Your task to perform on an android device: Show the shopping cart on walmart.com. Search for "logitech g933" on walmart.com, select the first entry, and add it to the cart. Image 0: 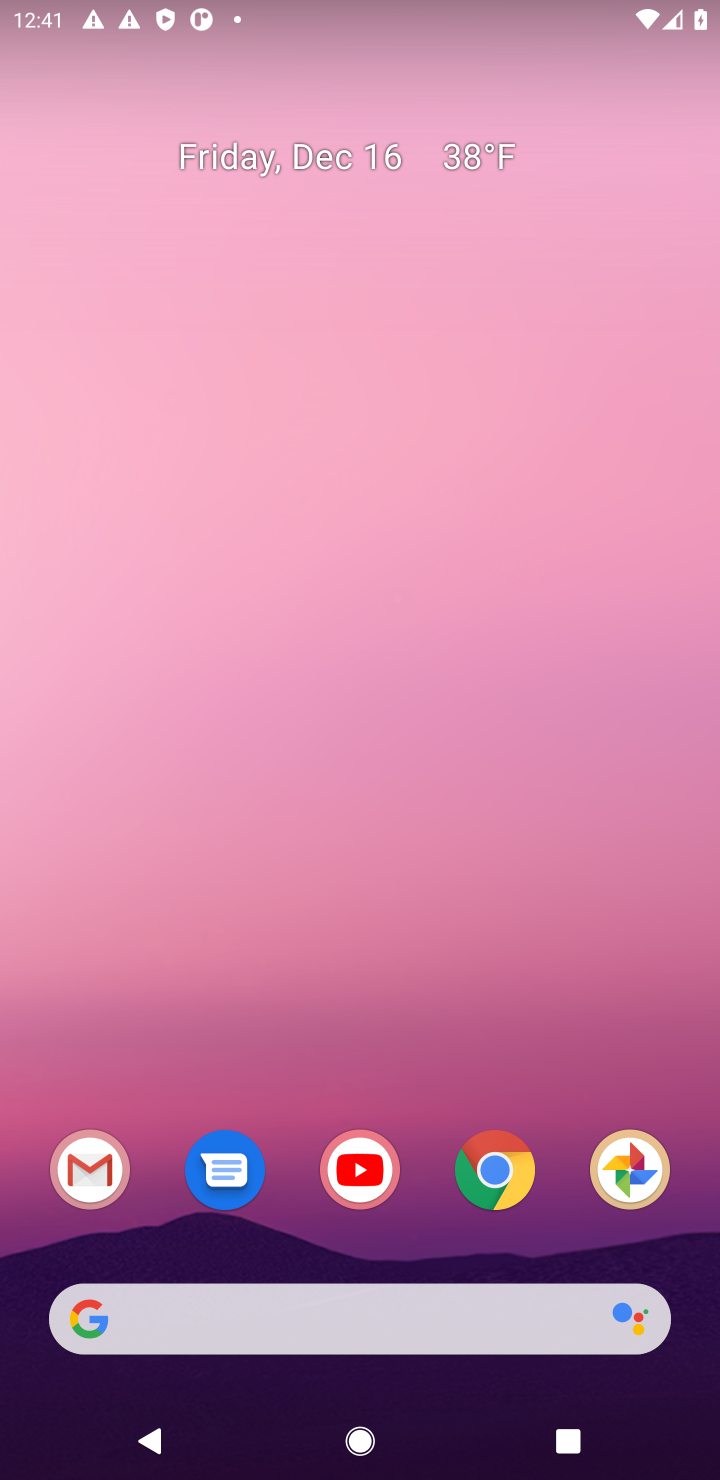
Step 0: click (488, 1198)
Your task to perform on an android device: Show the shopping cart on walmart.com. Search for "logitech g933" on walmart.com, select the first entry, and add it to the cart. Image 1: 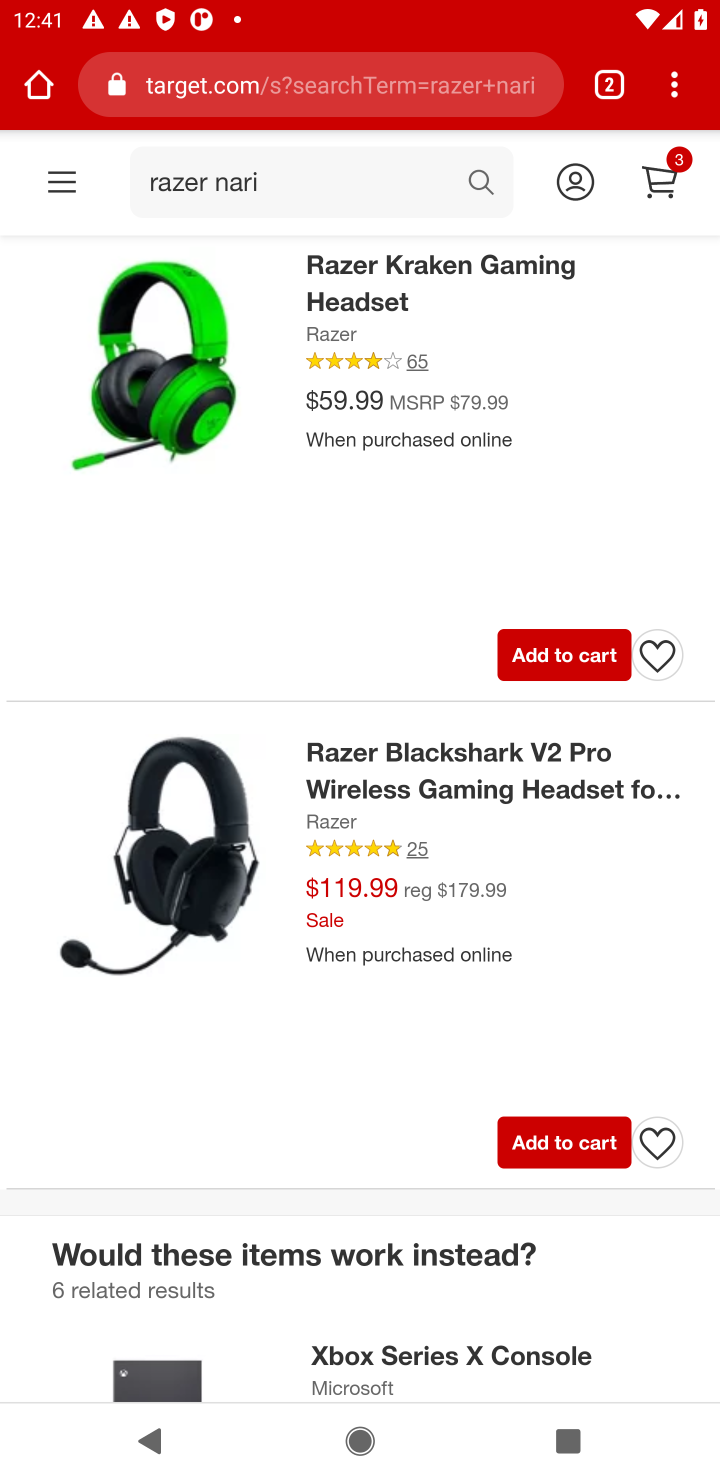
Step 1: click (242, 88)
Your task to perform on an android device: Show the shopping cart on walmart.com. Search for "logitech g933" on walmart.com, select the first entry, and add it to the cart. Image 2: 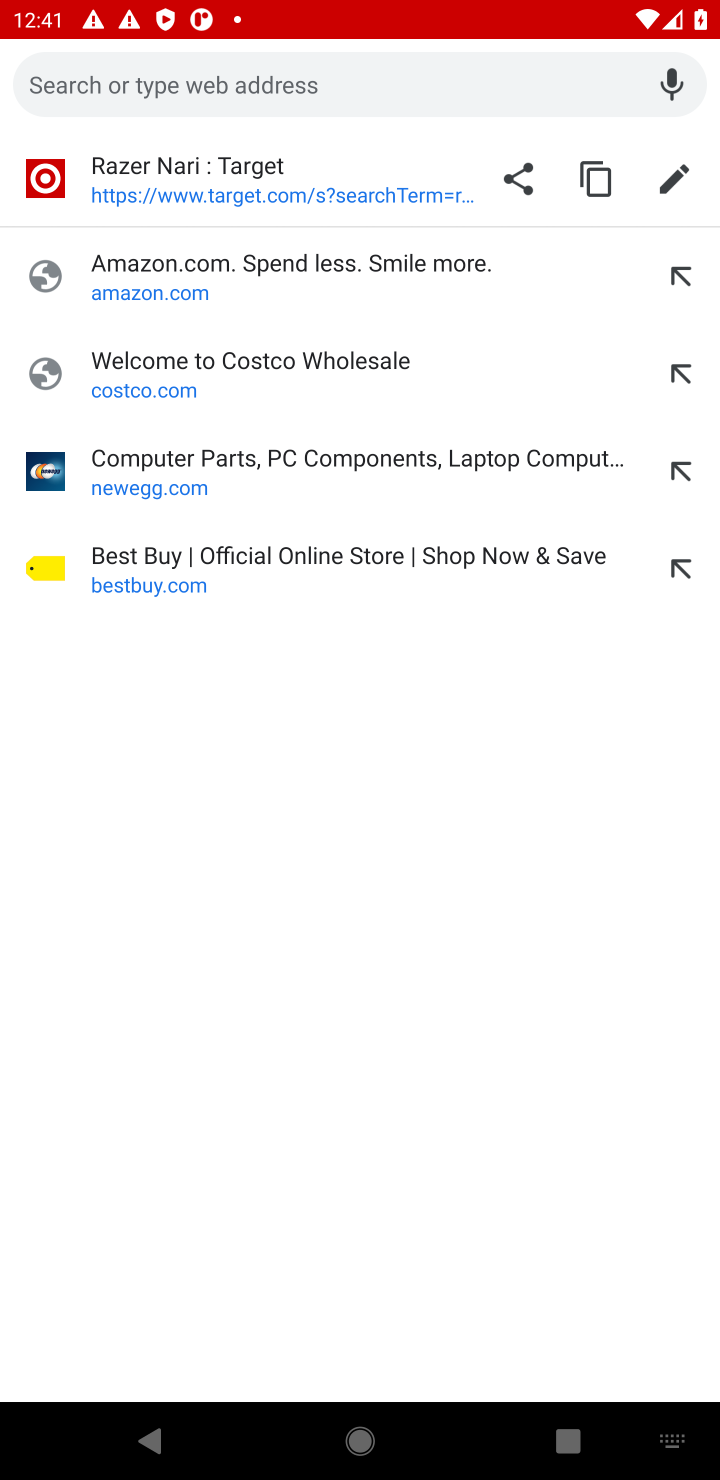
Step 2: type "walmart.com"
Your task to perform on an android device: Show the shopping cart on walmart.com. Search for "logitech g933" on walmart.com, select the first entry, and add it to the cart. Image 3: 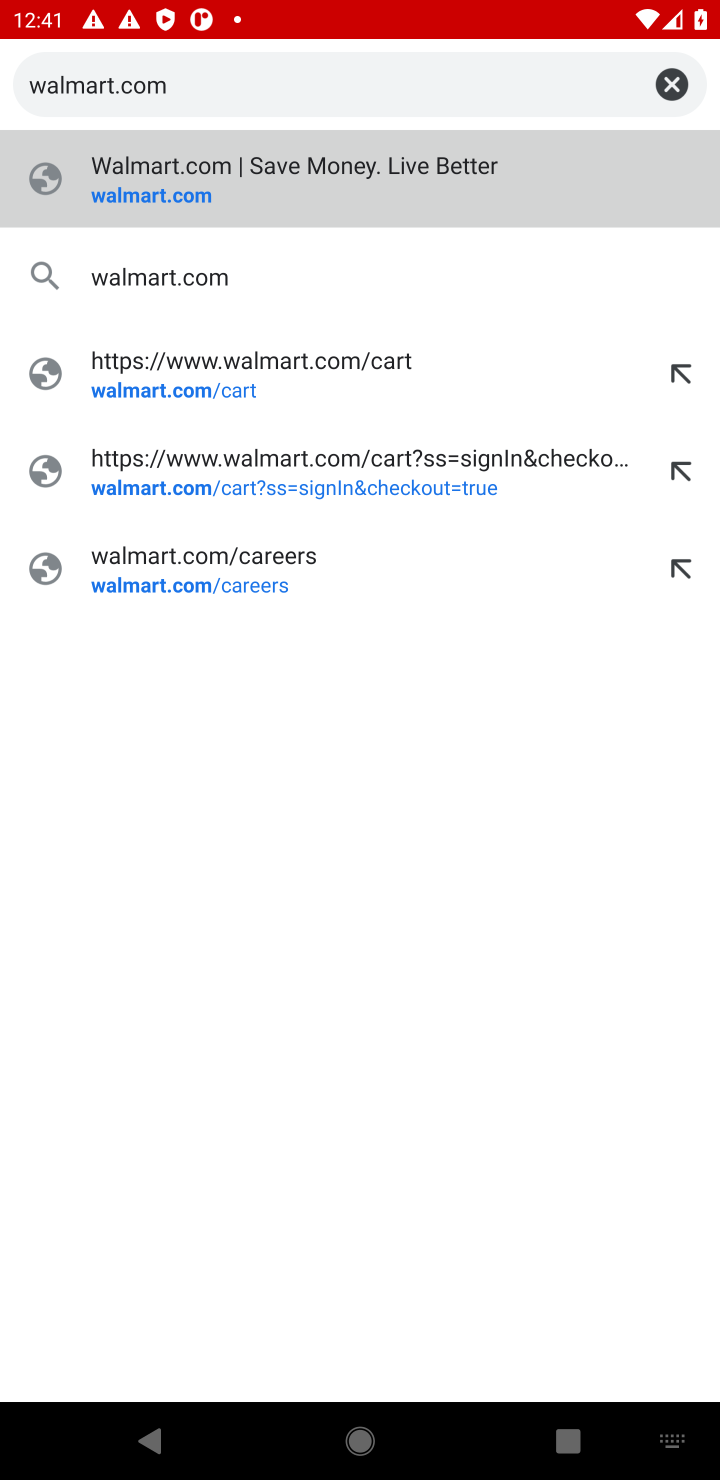
Step 3: click (144, 204)
Your task to perform on an android device: Show the shopping cart on walmart.com. Search for "logitech g933" on walmart.com, select the first entry, and add it to the cart. Image 4: 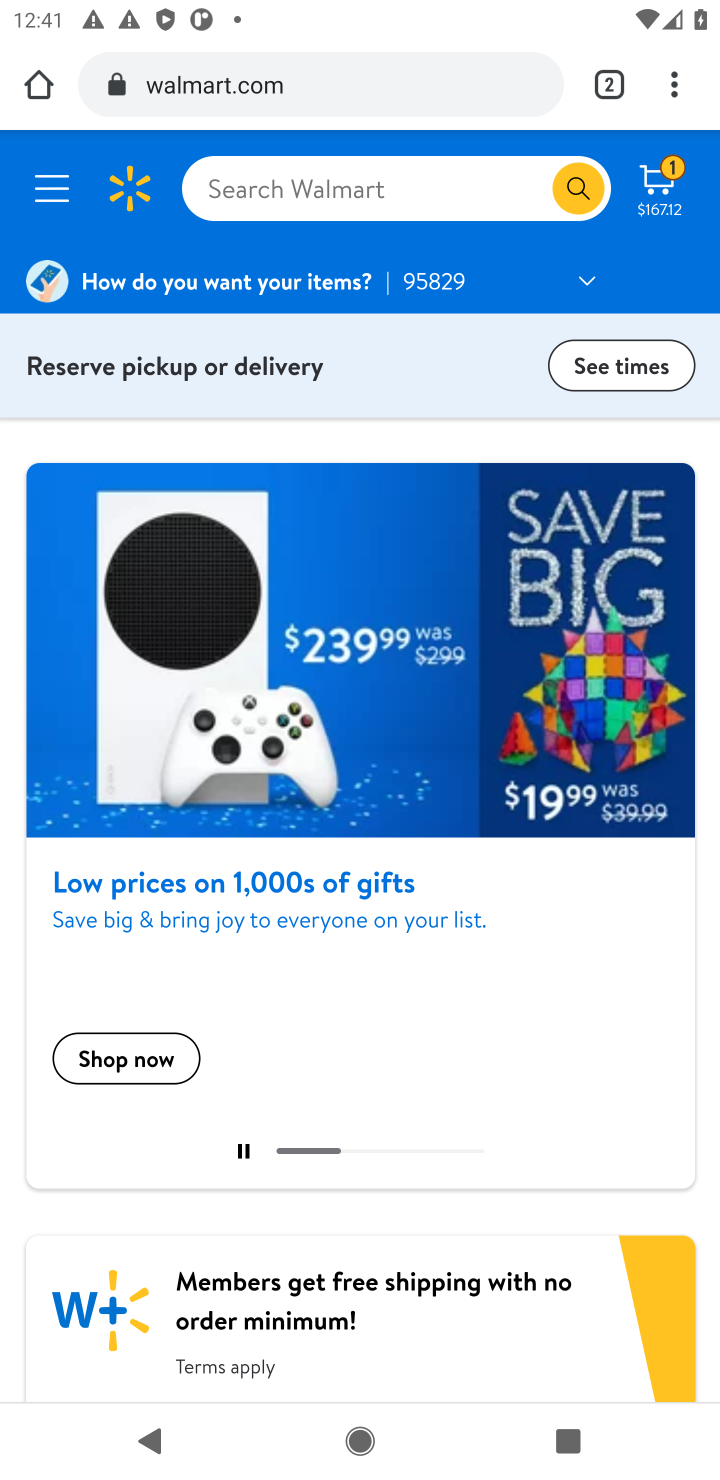
Step 4: click (659, 200)
Your task to perform on an android device: Show the shopping cart on walmart.com. Search for "logitech g933" on walmart.com, select the first entry, and add it to the cart. Image 5: 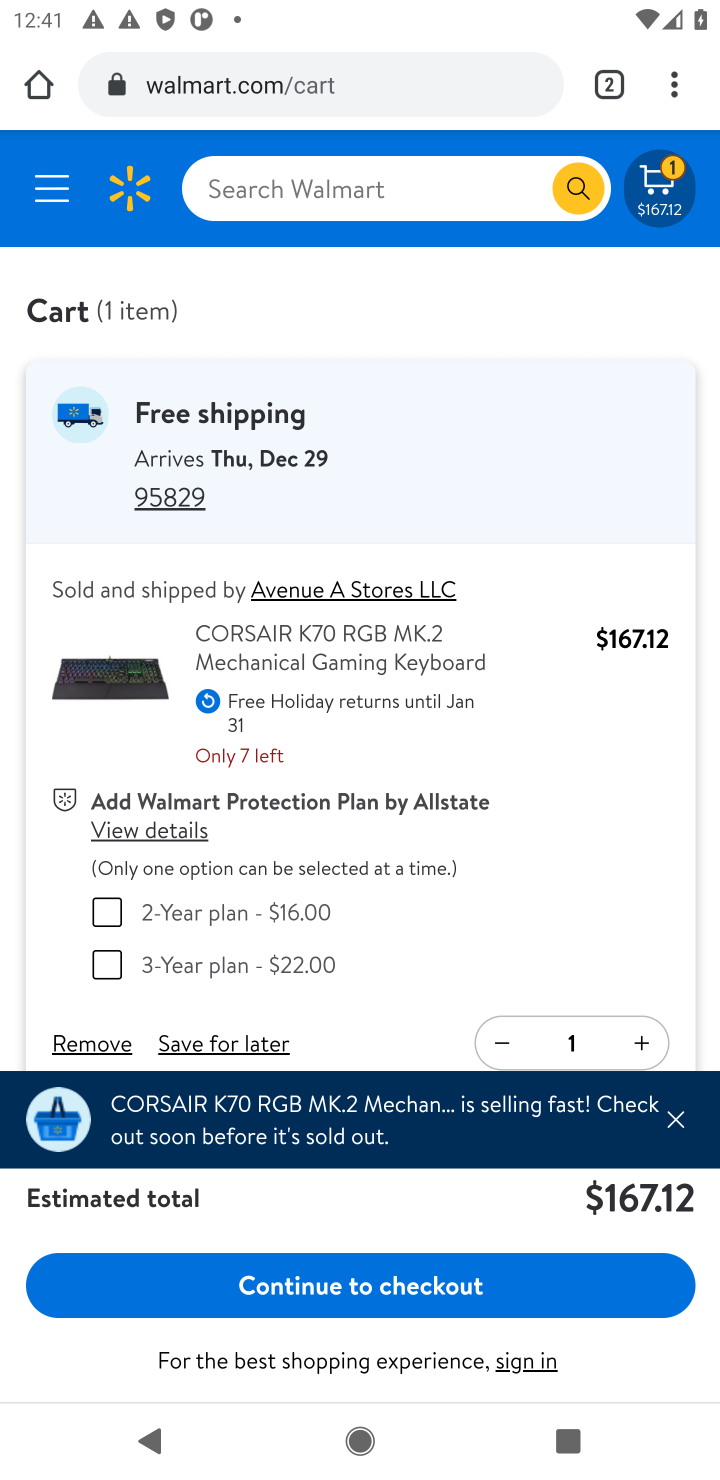
Step 5: click (294, 203)
Your task to perform on an android device: Show the shopping cart on walmart.com. Search for "logitech g933" on walmart.com, select the first entry, and add it to the cart. Image 6: 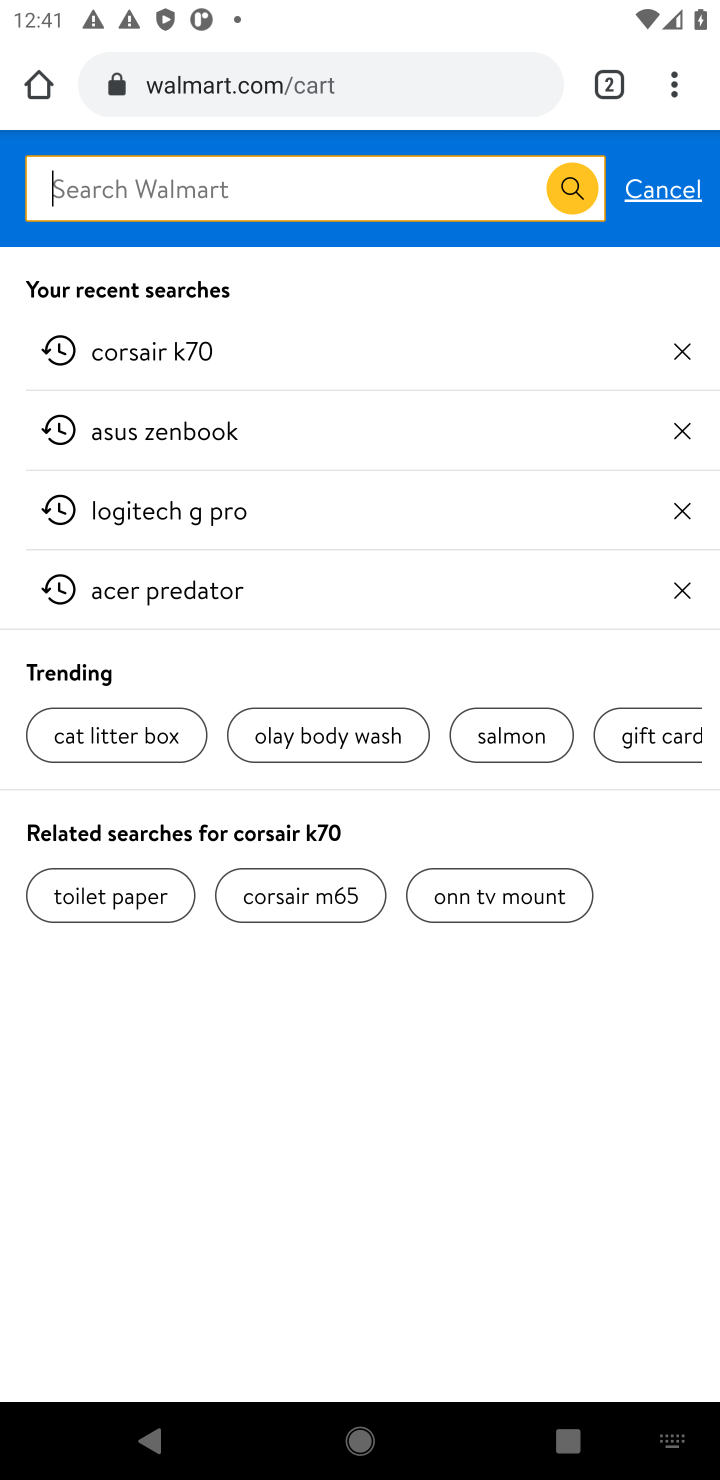
Step 6: type "logitech g933"
Your task to perform on an android device: Show the shopping cart on walmart.com. Search for "logitech g933" on walmart.com, select the first entry, and add it to the cart. Image 7: 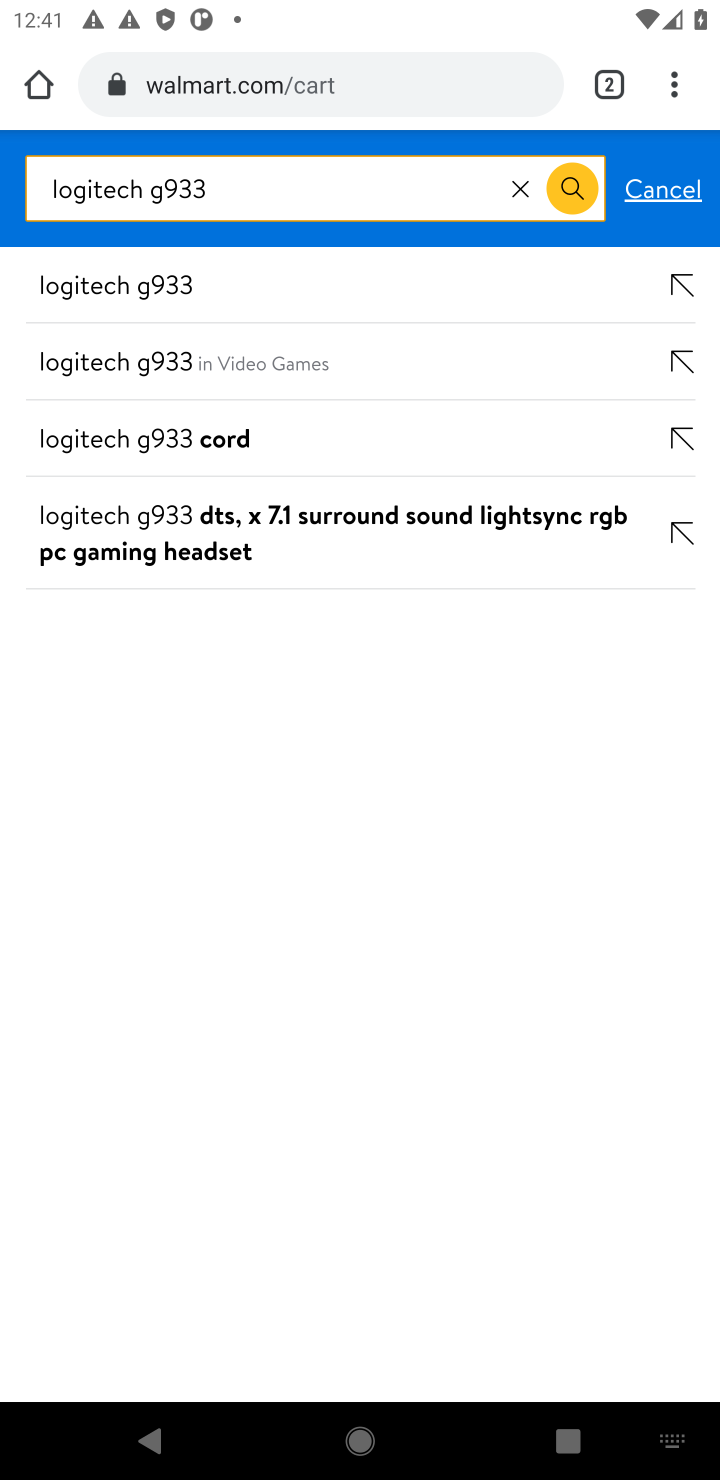
Step 7: click (111, 293)
Your task to perform on an android device: Show the shopping cart on walmart.com. Search for "logitech g933" on walmart.com, select the first entry, and add it to the cart. Image 8: 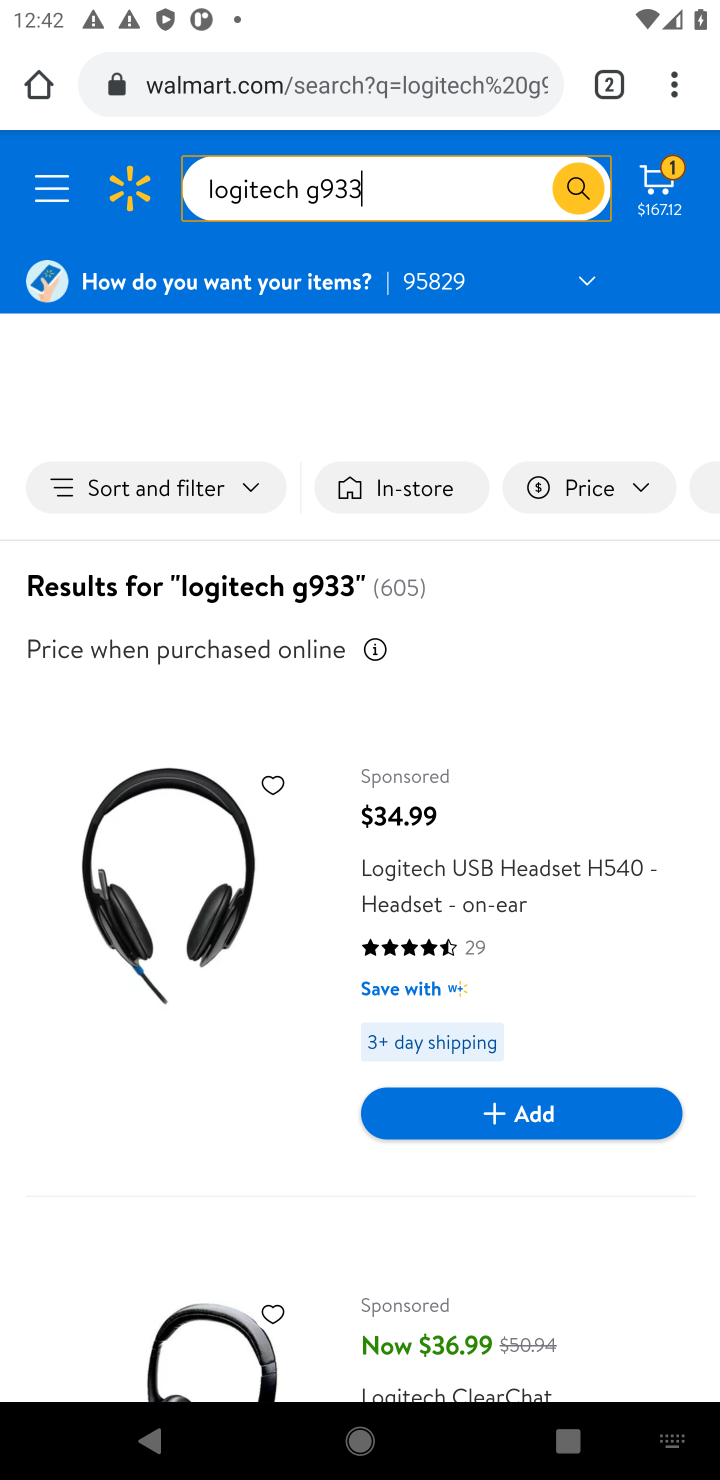
Step 8: click (460, 877)
Your task to perform on an android device: Show the shopping cart on walmart.com. Search for "logitech g933" on walmart.com, select the first entry, and add it to the cart. Image 9: 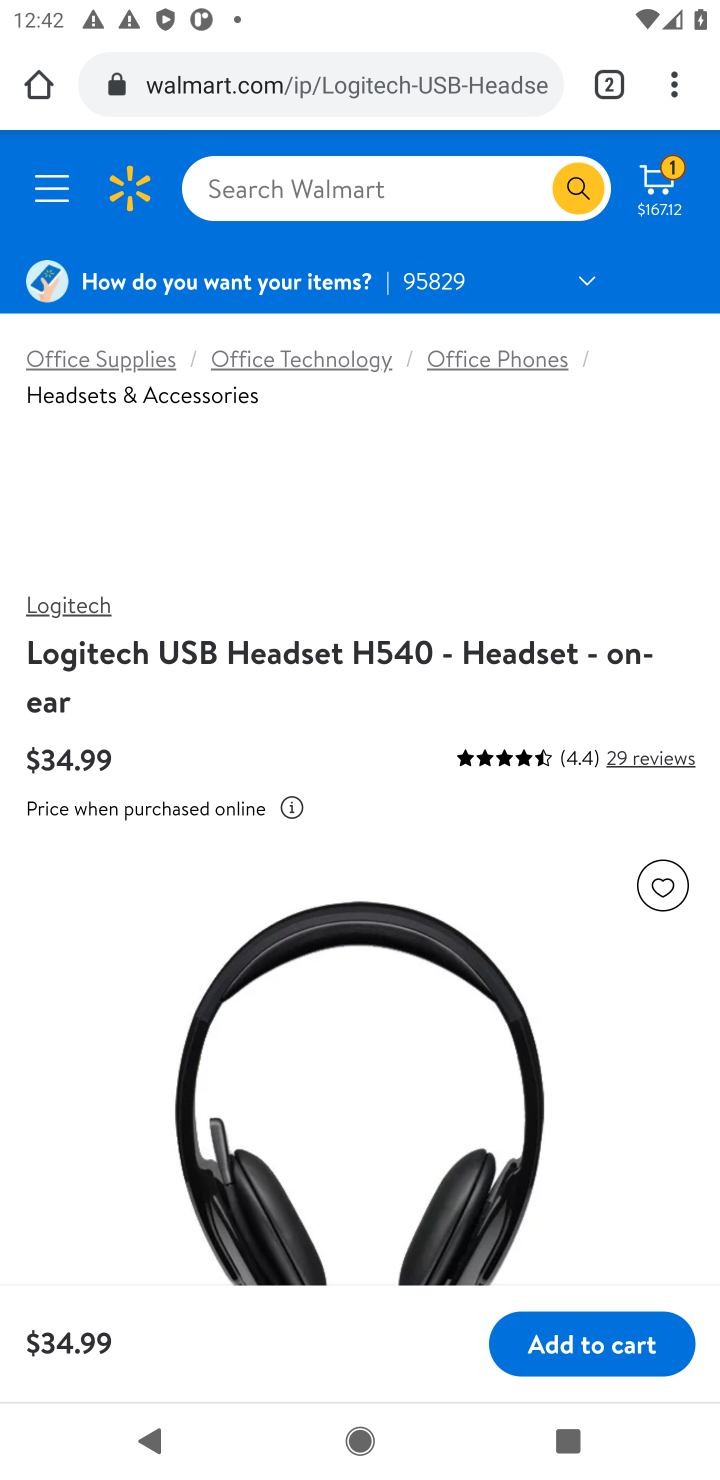
Step 9: task complete